Your task to perform on an android device: Do I have any events this weekend? Image 0: 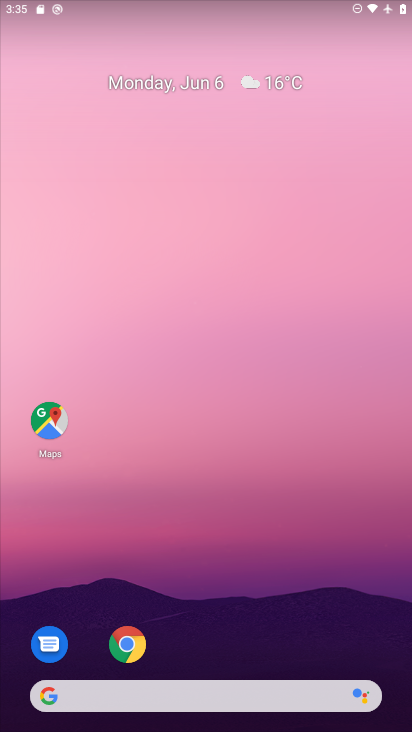
Step 0: drag from (261, 613) to (238, 72)
Your task to perform on an android device: Do I have any events this weekend? Image 1: 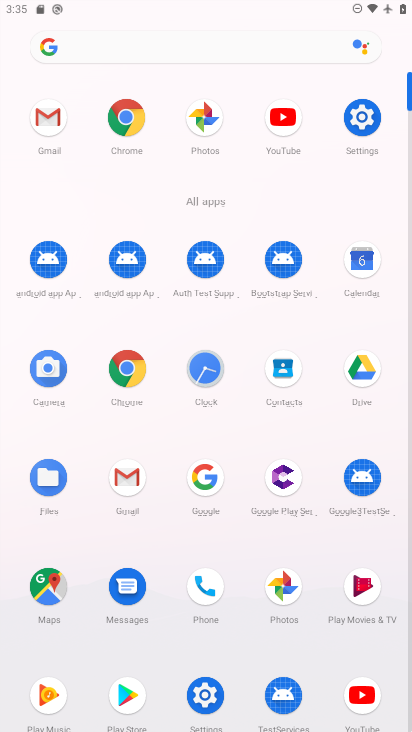
Step 1: click (366, 262)
Your task to perform on an android device: Do I have any events this weekend? Image 2: 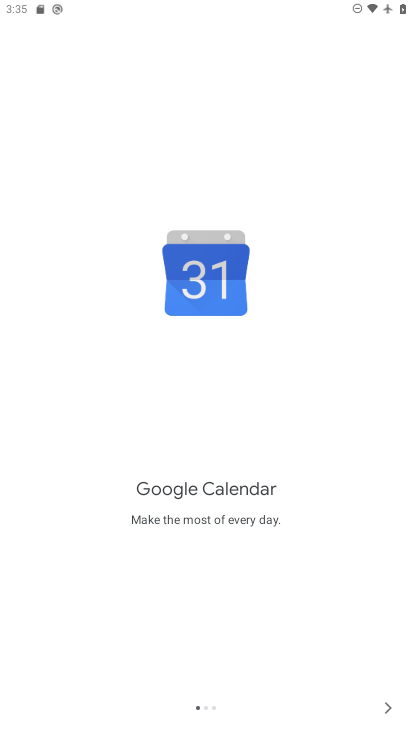
Step 2: click (388, 706)
Your task to perform on an android device: Do I have any events this weekend? Image 3: 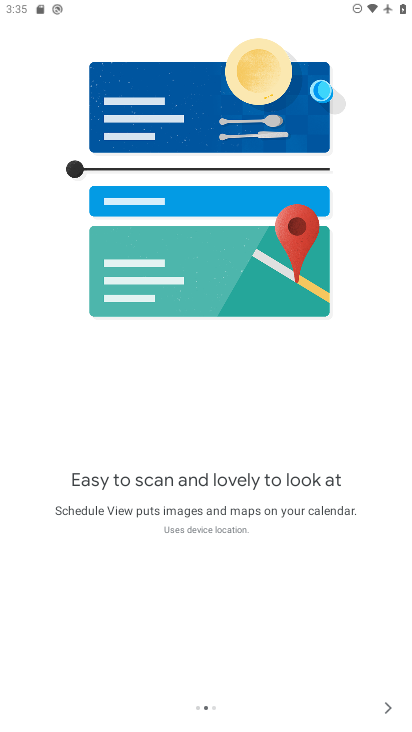
Step 3: click (388, 706)
Your task to perform on an android device: Do I have any events this weekend? Image 4: 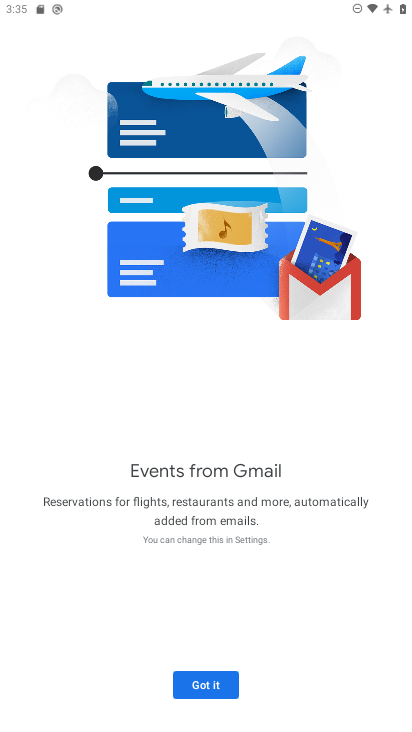
Step 4: click (388, 706)
Your task to perform on an android device: Do I have any events this weekend? Image 5: 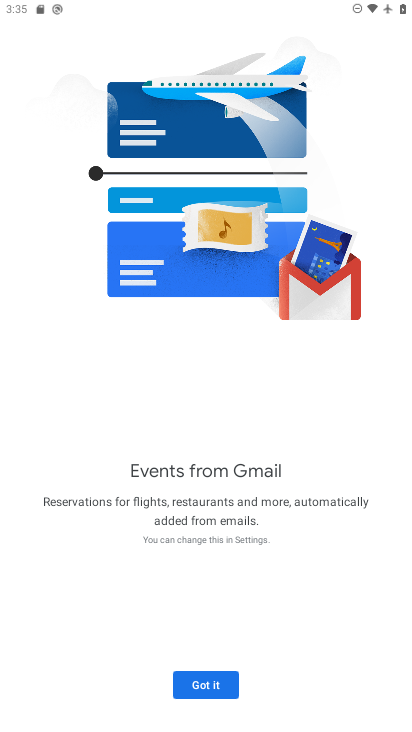
Step 5: click (188, 679)
Your task to perform on an android device: Do I have any events this weekend? Image 6: 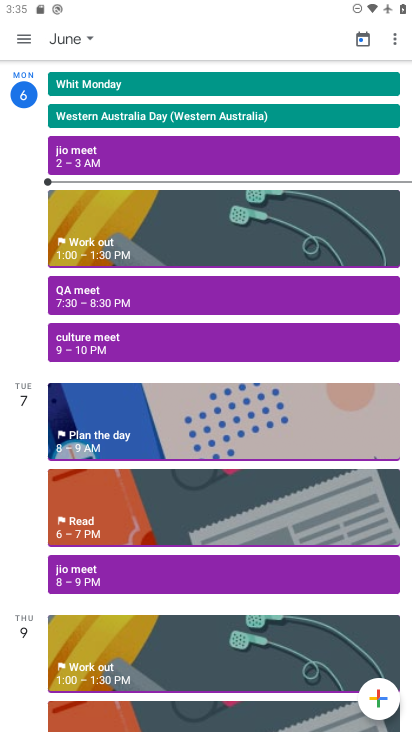
Step 6: click (89, 39)
Your task to perform on an android device: Do I have any events this weekend? Image 7: 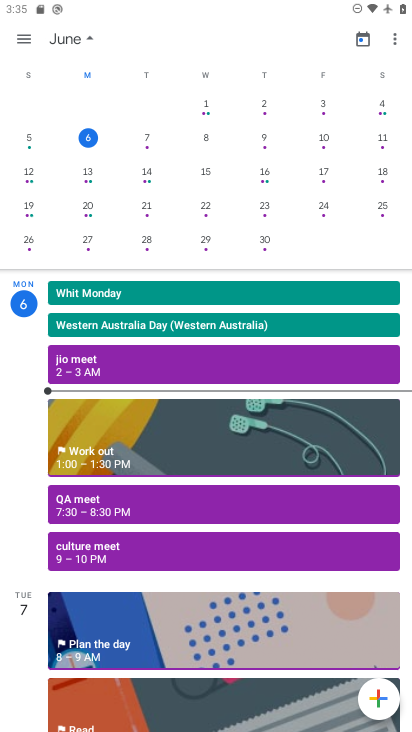
Step 7: click (389, 144)
Your task to perform on an android device: Do I have any events this weekend? Image 8: 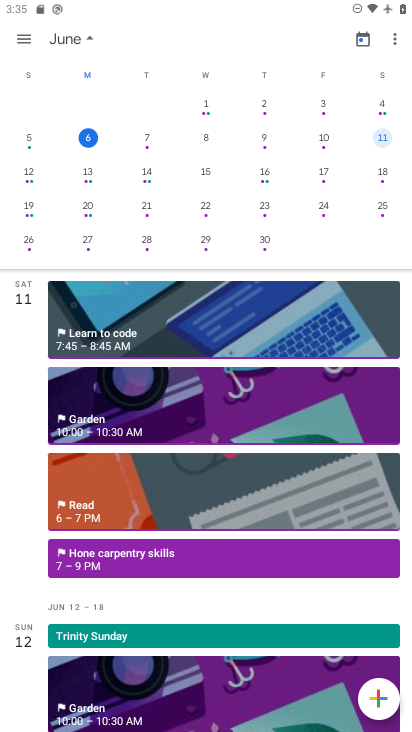
Step 8: click (31, 44)
Your task to perform on an android device: Do I have any events this weekend? Image 9: 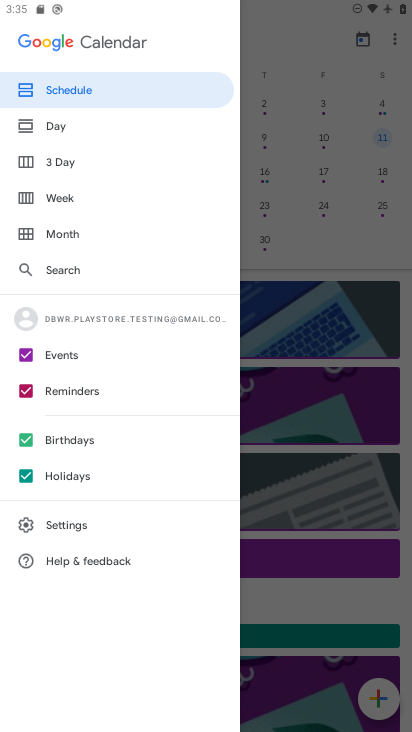
Step 9: click (67, 86)
Your task to perform on an android device: Do I have any events this weekend? Image 10: 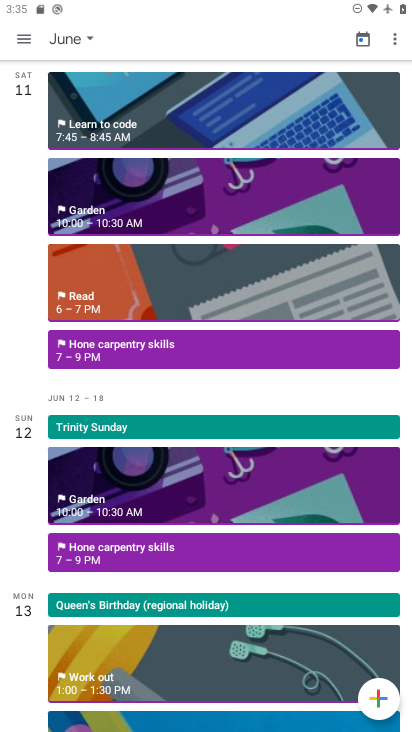
Step 10: task complete